Your task to perform on an android device: Show me popular games on the Play Store Image 0: 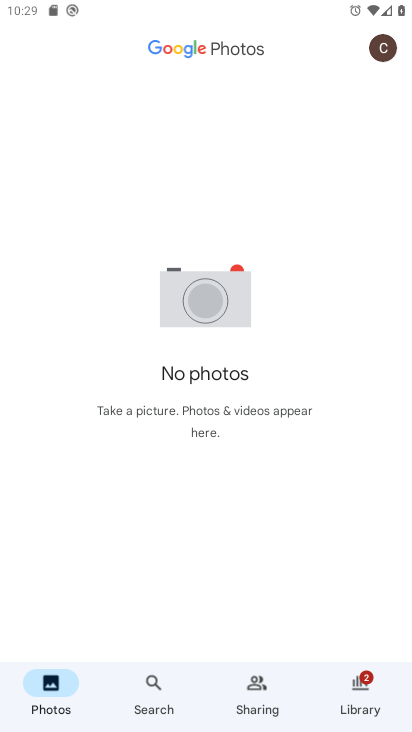
Step 0: click (258, 381)
Your task to perform on an android device: Show me popular games on the Play Store Image 1: 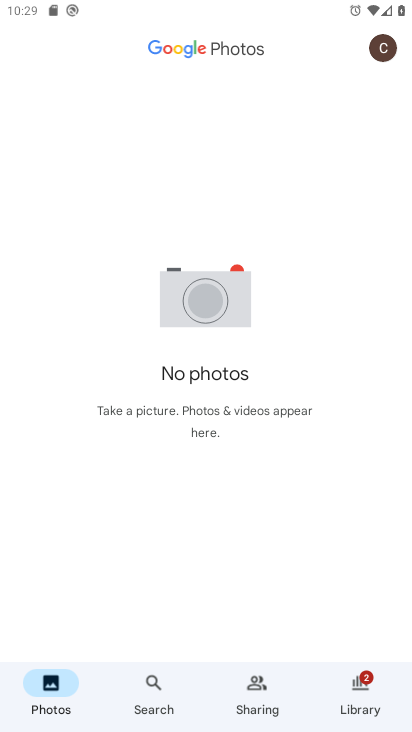
Step 1: press home button
Your task to perform on an android device: Show me popular games on the Play Store Image 2: 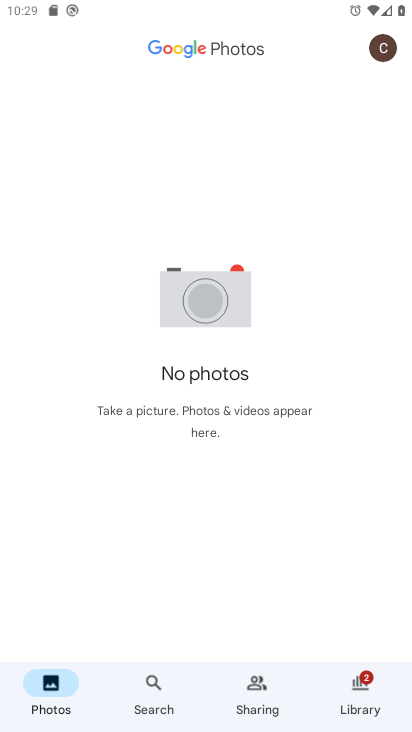
Step 2: click (339, 13)
Your task to perform on an android device: Show me popular games on the Play Store Image 3: 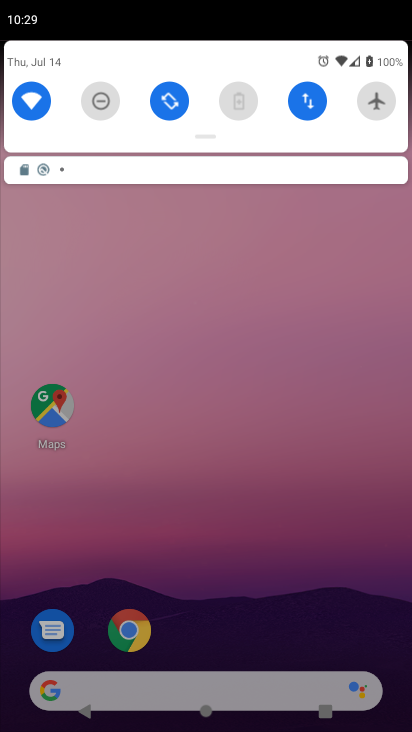
Step 3: drag from (202, 630) to (290, 99)
Your task to perform on an android device: Show me popular games on the Play Store Image 4: 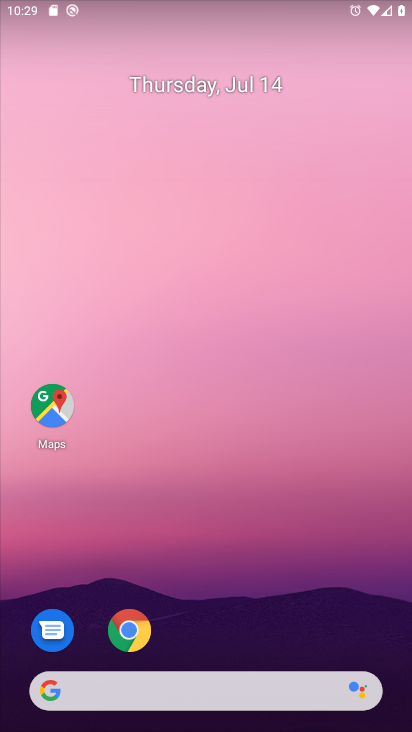
Step 4: drag from (223, 665) to (270, 144)
Your task to perform on an android device: Show me popular games on the Play Store Image 5: 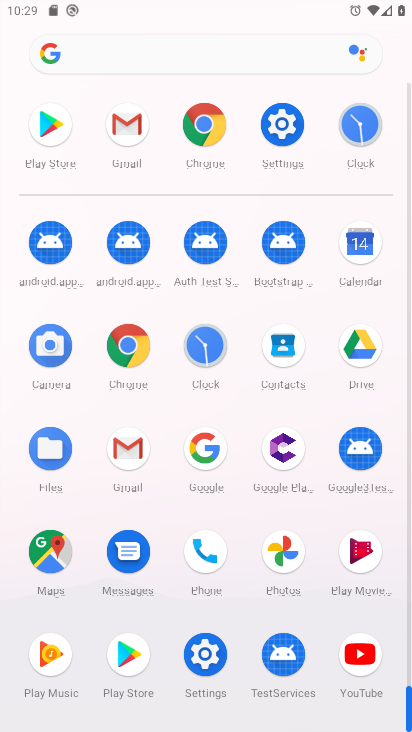
Step 5: click (129, 645)
Your task to perform on an android device: Show me popular games on the Play Store Image 6: 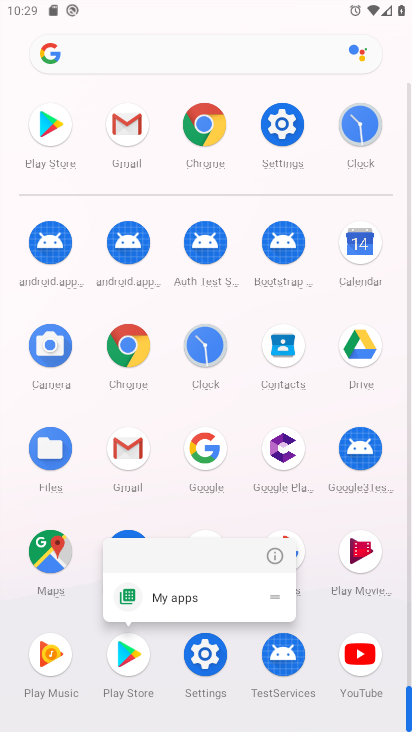
Step 6: click (277, 558)
Your task to perform on an android device: Show me popular games on the Play Store Image 7: 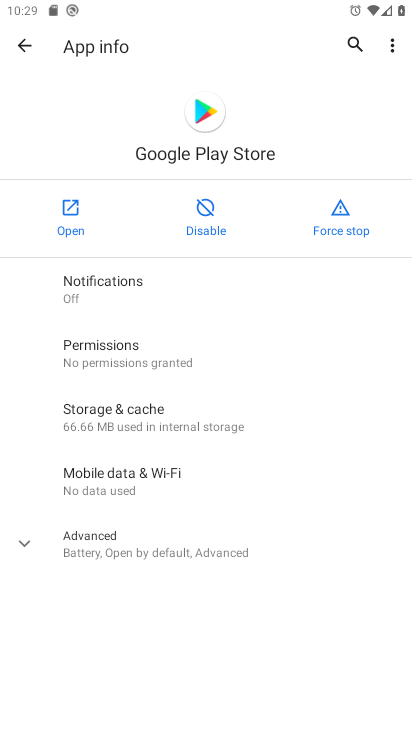
Step 7: click (60, 203)
Your task to perform on an android device: Show me popular games on the Play Store Image 8: 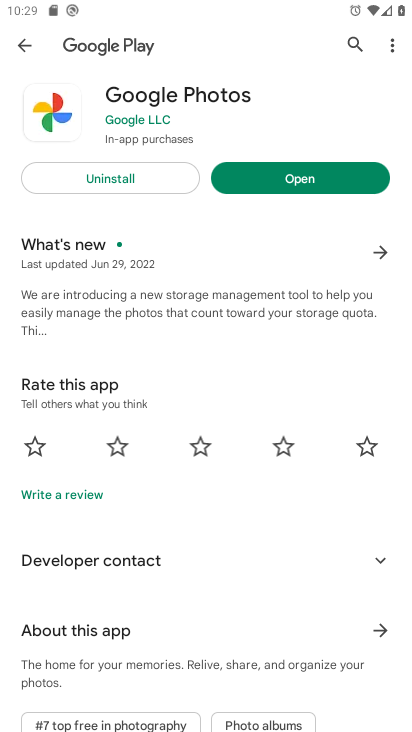
Step 8: drag from (242, 592) to (259, 621)
Your task to perform on an android device: Show me popular games on the Play Store Image 9: 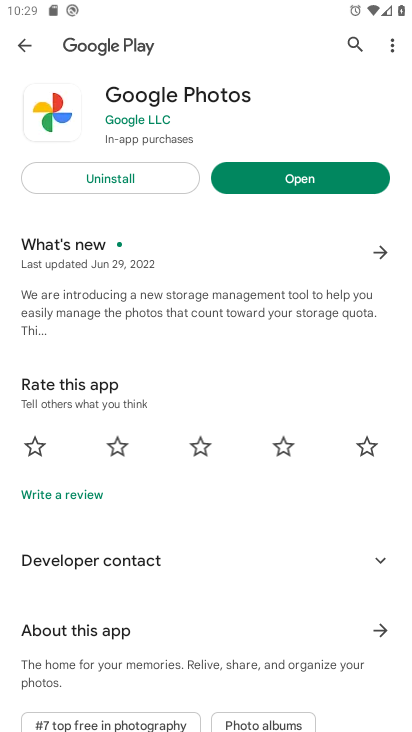
Step 9: click (17, 50)
Your task to perform on an android device: Show me popular games on the Play Store Image 10: 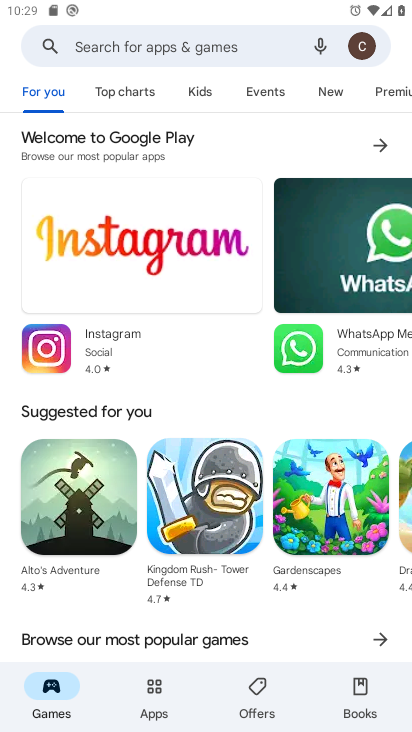
Step 10: click (390, 638)
Your task to perform on an android device: Show me popular games on the Play Store Image 11: 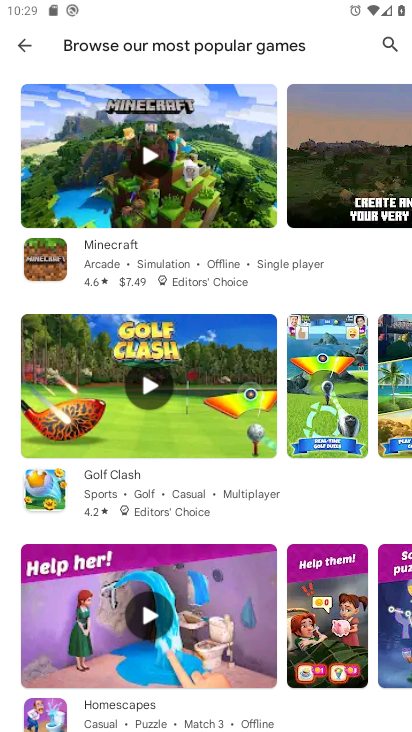
Step 11: task complete